Your task to perform on an android device: Open Google Chrome and click the shortcut for Amazon.com Image 0: 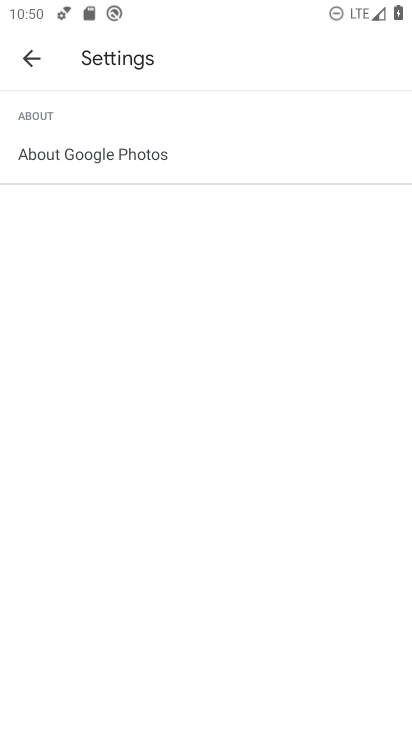
Step 0: press home button
Your task to perform on an android device: Open Google Chrome and click the shortcut for Amazon.com Image 1: 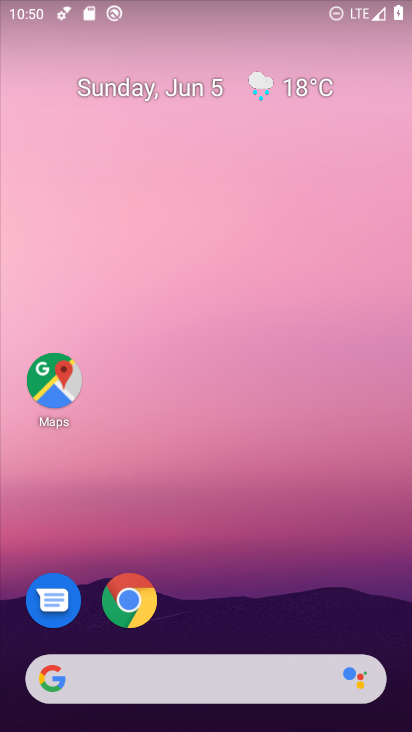
Step 1: click (136, 607)
Your task to perform on an android device: Open Google Chrome and click the shortcut for Amazon.com Image 2: 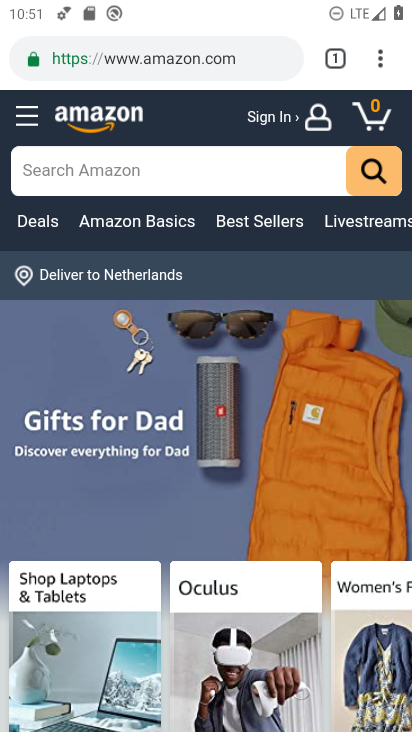
Step 2: task complete